Your task to perform on an android device: Turn on the flashlight Image 0: 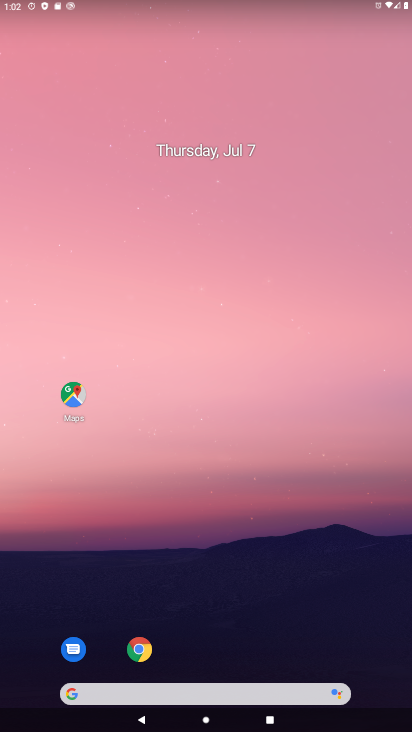
Step 0: drag from (222, 659) to (183, 249)
Your task to perform on an android device: Turn on the flashlight Image 1: 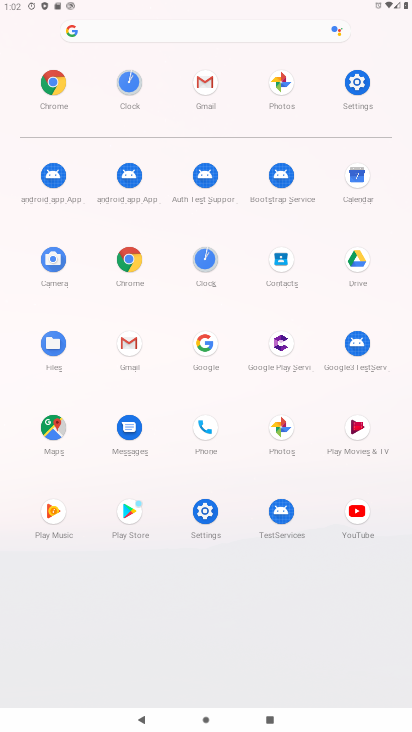
Step 1: click (358, 117)
Your task to perform on an android device: Turn on the flashlight Image 2: 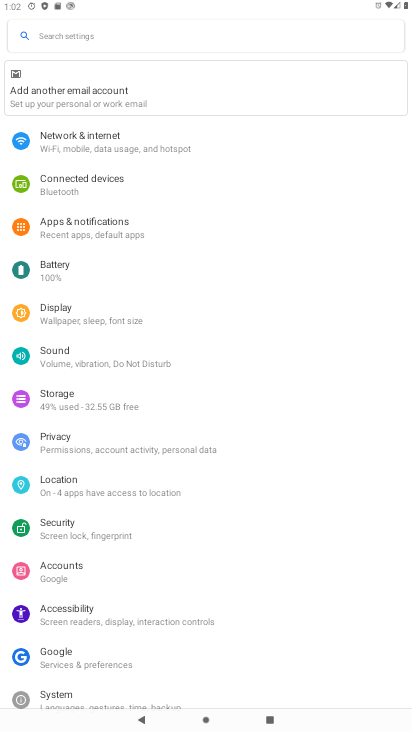
Step 2: task complete